Your task to perform on an android device: Open internet settings Image 0: 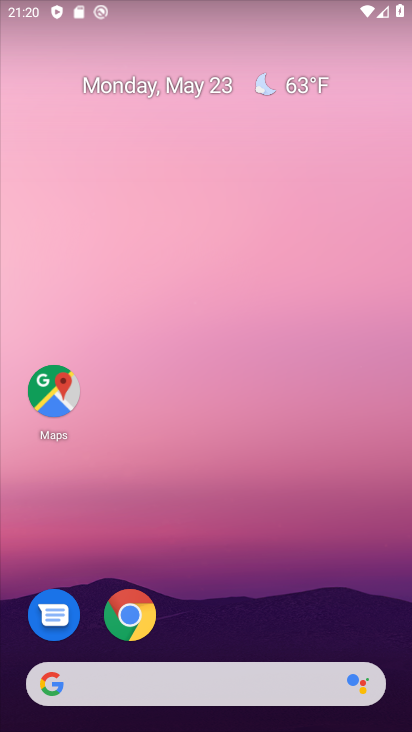
Step 0: drag from (233, 625) to (168, 98)
Your task to perform on an android device: Open internet settings Image 1: 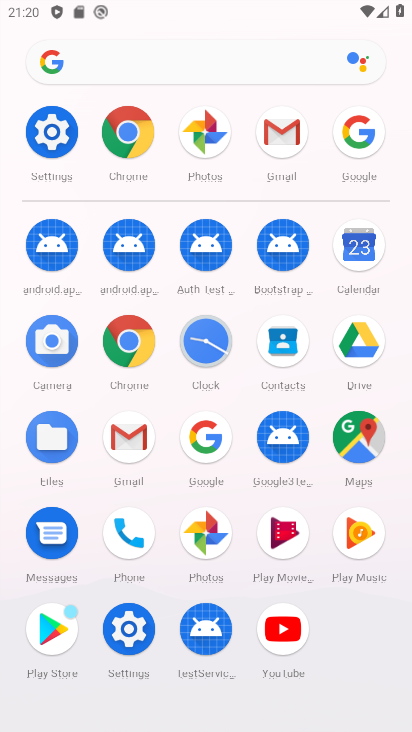
Step 1: click (48, 128)
Your task to perform on an android device: Open internet settings Image 2: 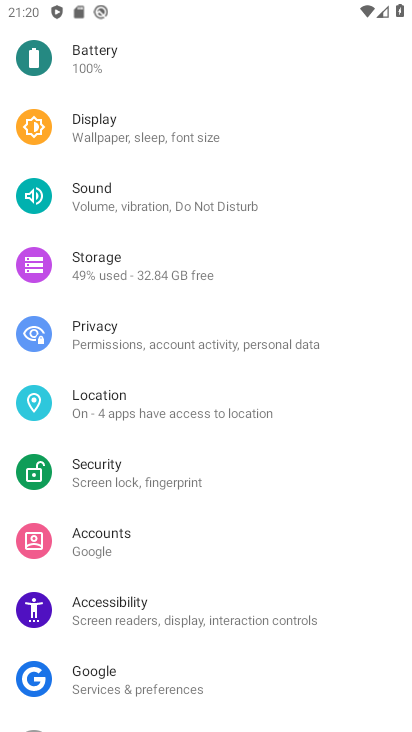
Step 2: drag from (172, 100) to (261, 647)
Your task to perform on an android device: Open internet settings Image 3: 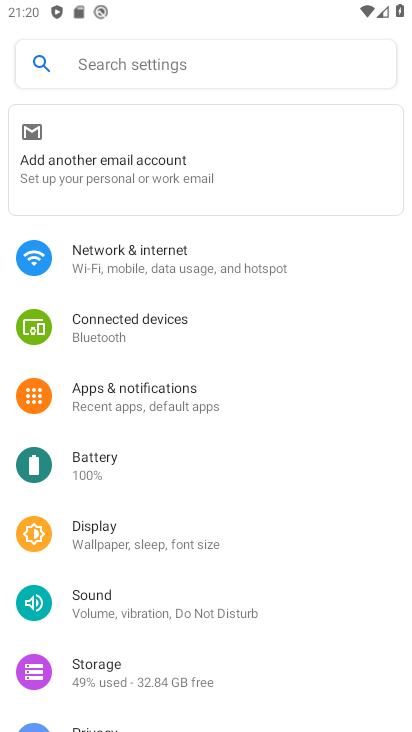
Step 3: click (158, 250)
Your task to perform on an android device: Open internet settings Image 4: 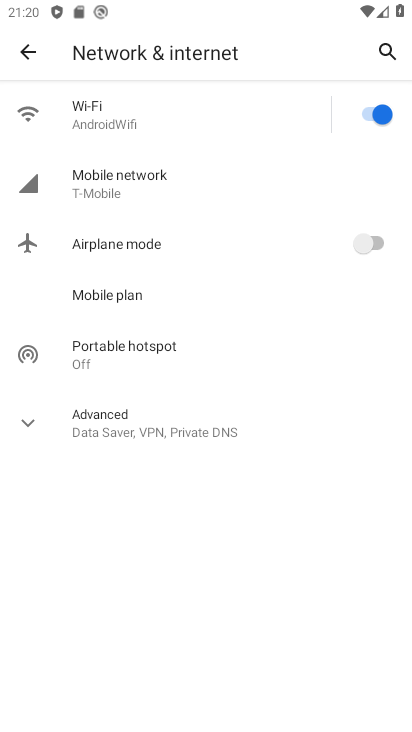
Step 4: click (115, 113)
Your task to perform on an android device: Open internet settings Image 5: 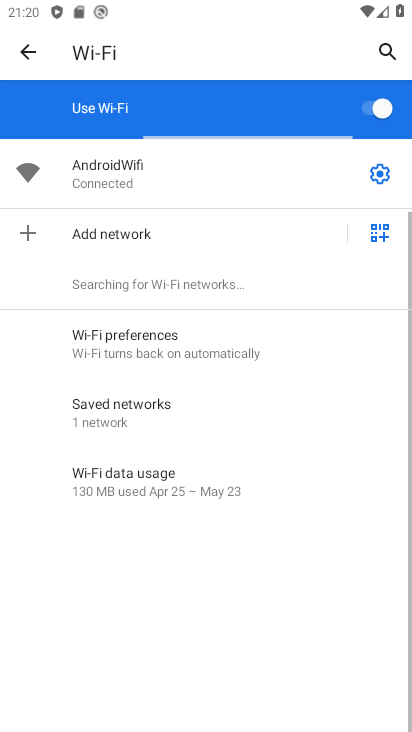
Step 5: click (187, 167)
Your task to perform on an android device: Open internet settings Image 6: 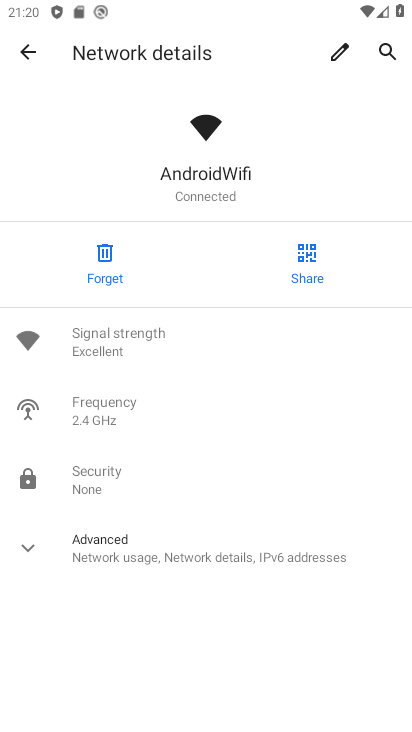
Step 6: task complete